Your task to perform on an android device: Open the calendar app, open the side menu, and click the "Day" option Image 0: 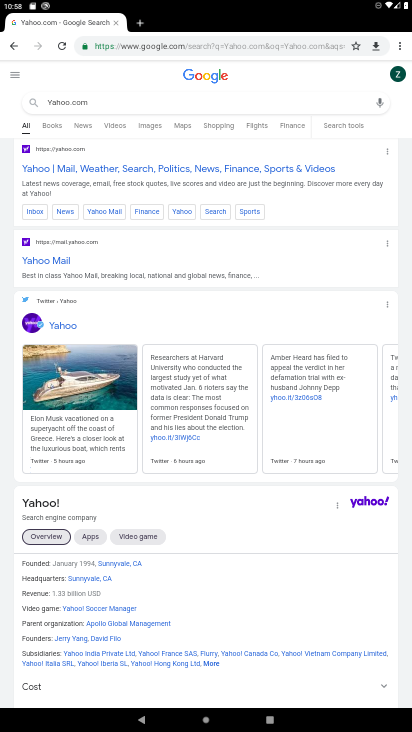
Step 0: press home button
Your task to perform on an android device: Open the calendar app, open the side menu, and click the "Day" option Image 1: 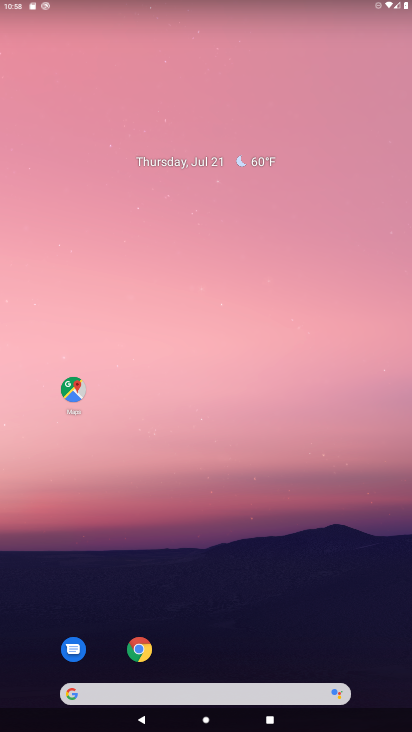
Step 1: drag from (401, 633) to (342, 138)
Your task to perform on an android device: Open the calendar app, open the side menu, and click the "Day" option Image 2: 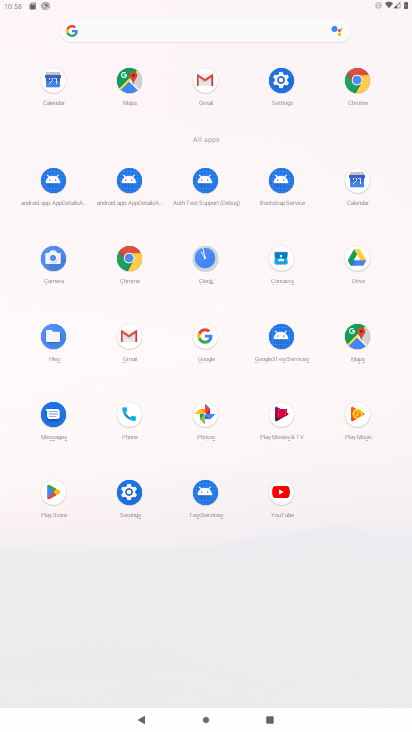
Step 2: click (351, 174)
Your task to perform on an android device: Open the calendar app, open the side menu, and click the "Day" option Image 3: 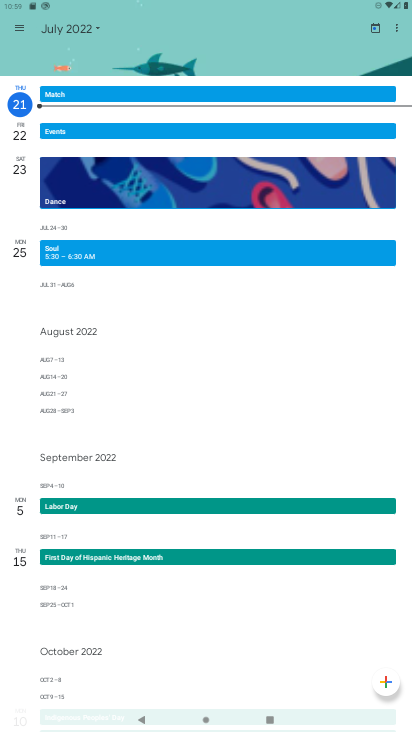
Step 3: click (11, 20)
Your task to perform on an android device: Open the calendar app, open the side menu, and click the "Day" option Image 4: 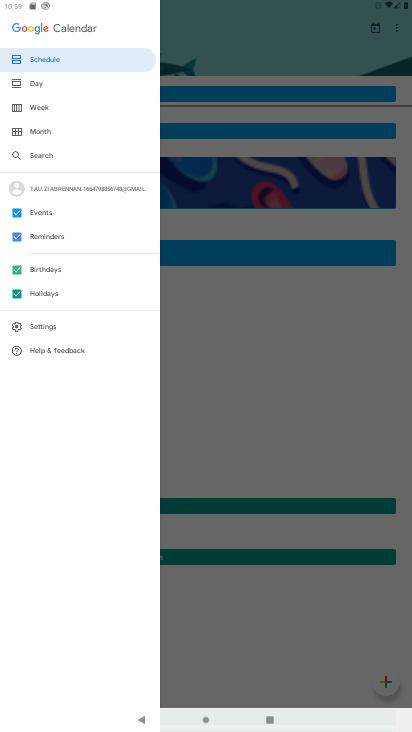
Step 4: click (25, 80)
Your task to perform on an android device: Open the calendar app, open the side menu, and click the "Day" option Image 5: 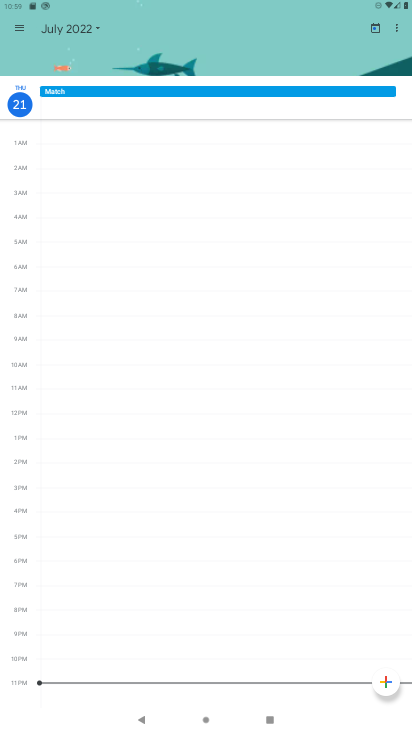
Step 5: task complete